Your task to perform on an android device: change notification settings in the gmail app Image 0: 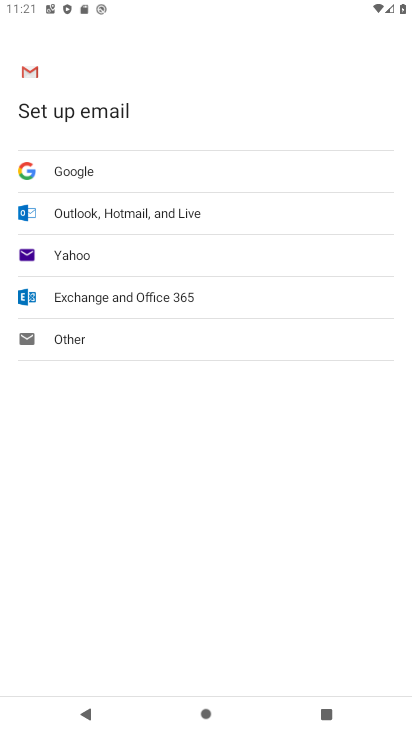
Step 0: press home button
Your task to perform on an android device: change notification settings in the gmail app Image 1: 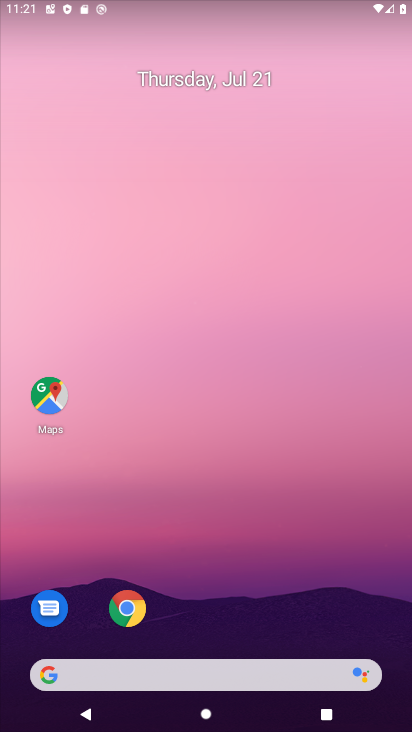
Step 1: drag from (255, 614) to (214, 61)
Your task to perform on an android device: change notification settings in the gmail app Image 2: 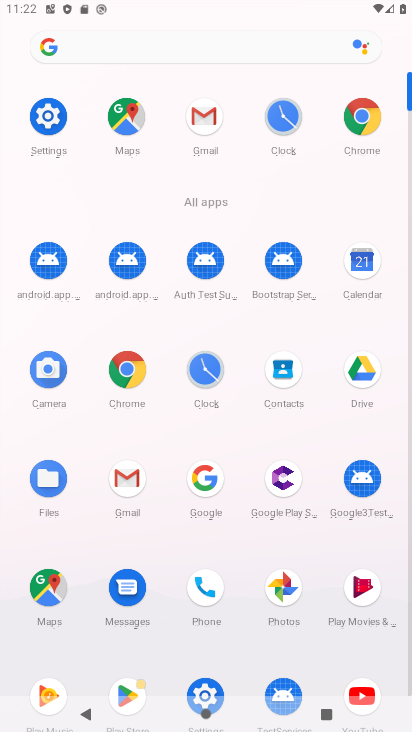
Step 2: click (121, 492)
Your task to perform on an android device: change notification settings in the gmail app Image 3: 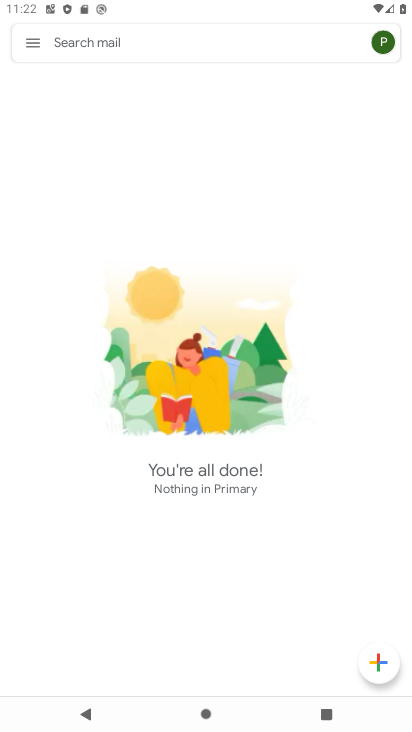
Step 3: click (26, 40)
Your task to perform on an android device: change notification settings in the gmail app Image 4: 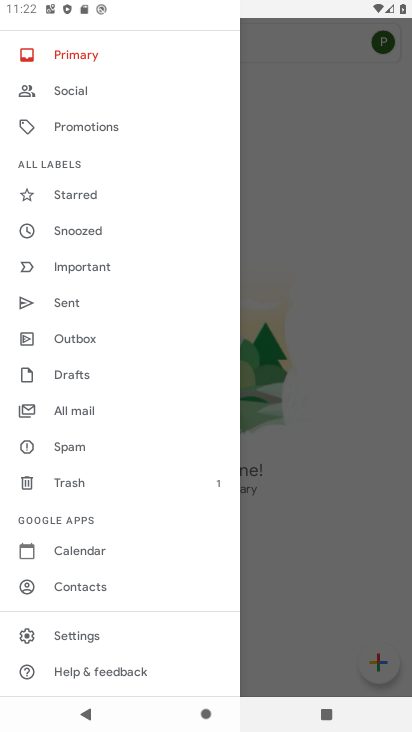
Step 4: click (61, 638)
Your task to perform on an android device: change notification settings in the gmail app Image 5: 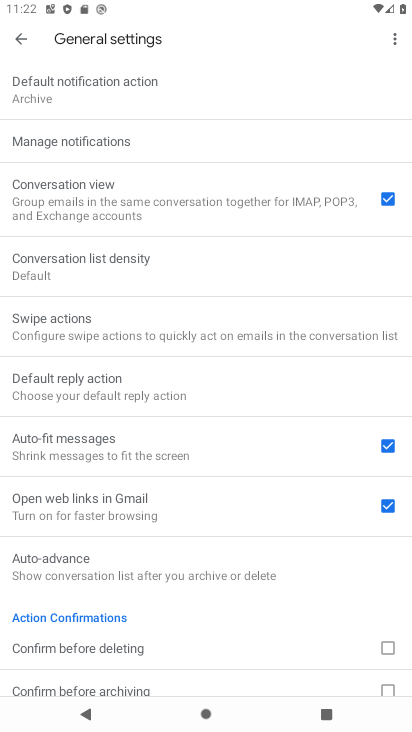
Step 5: click (63, 139)
Your task to perform on an android device: change notification settings in the gmail app Image 6: 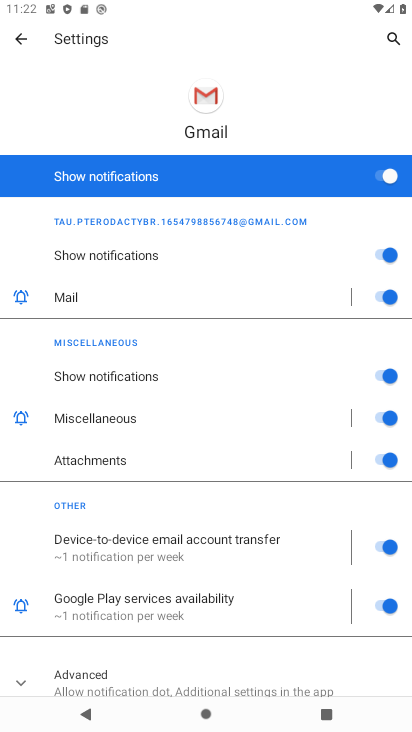
Step 6: click (359, 170)
Your task to perform on an android device: change notification settings in the gmail app Image 7: 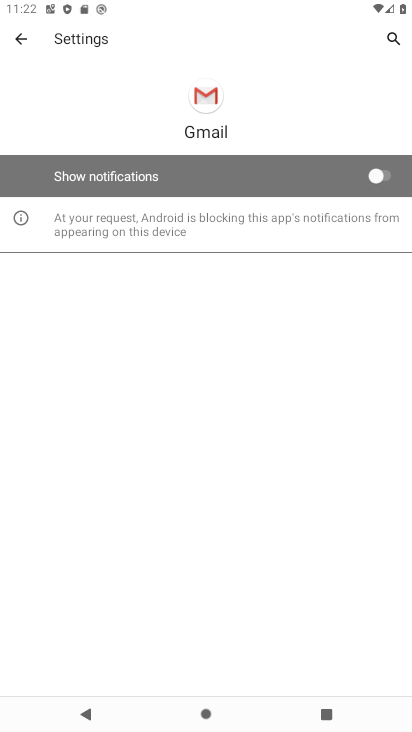
Step 7: task complete